Your task to perform on an android device: turn on javascript in the chrome app Image 0: 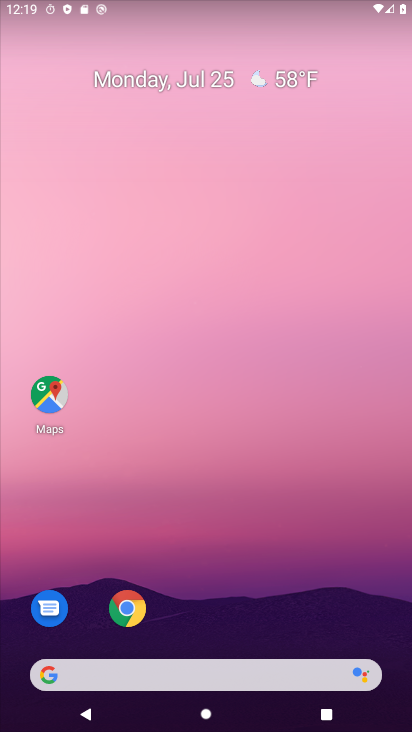
Step 0: press home button
Your task to perform on an android device: turn on javascript in the chrome app Image 1: 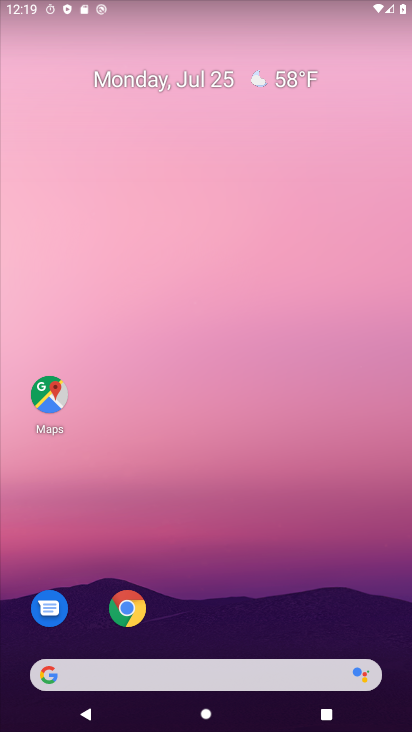
Step 1: drag from (277, 461) to (172, 64)
Your task to perform on an android device: turn on javascript in the chrome app Image 2: 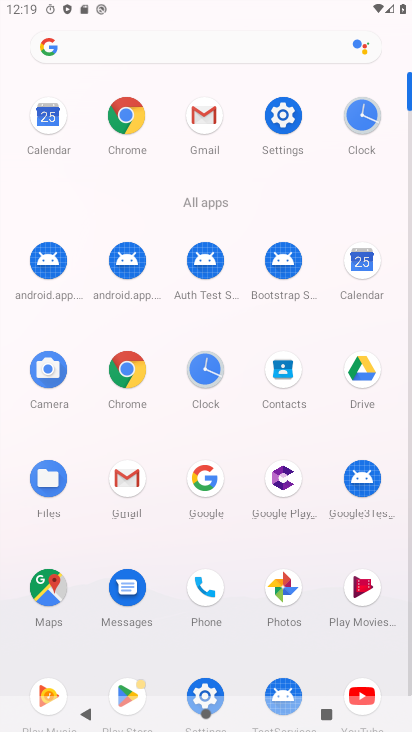
Step 2: click (129, 369)
Your task to perform on an android device: turn on javascript in the chrome app Image 3: 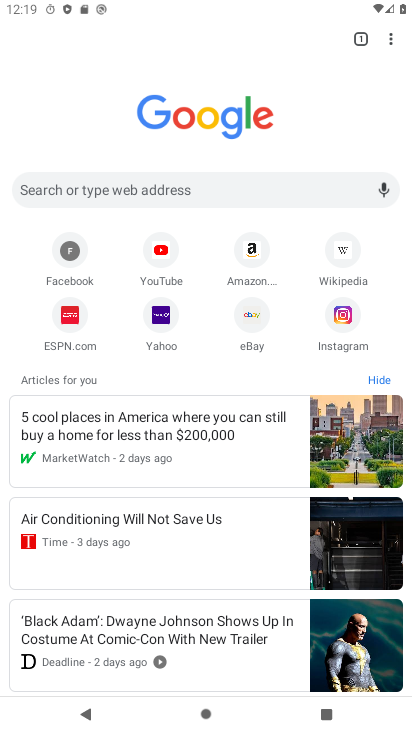
Step 3: click (395, 47)
Your task to perform on an android device: turn on javascript in the chrome app Image 4: 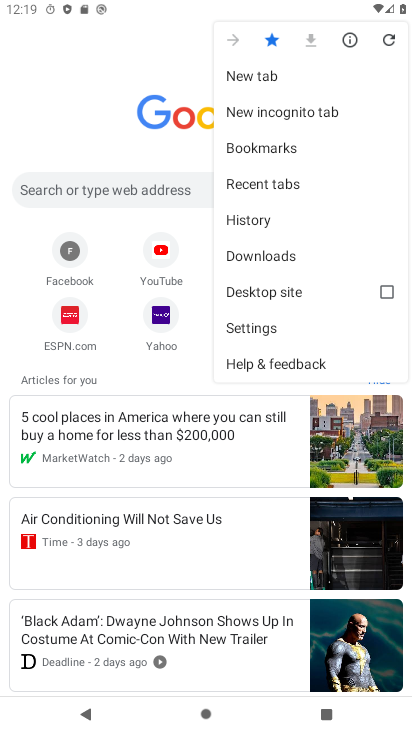
Step 4: click (249, 325)
Your task to perform on an android device: turn on javascript in the chrome app Image 5: 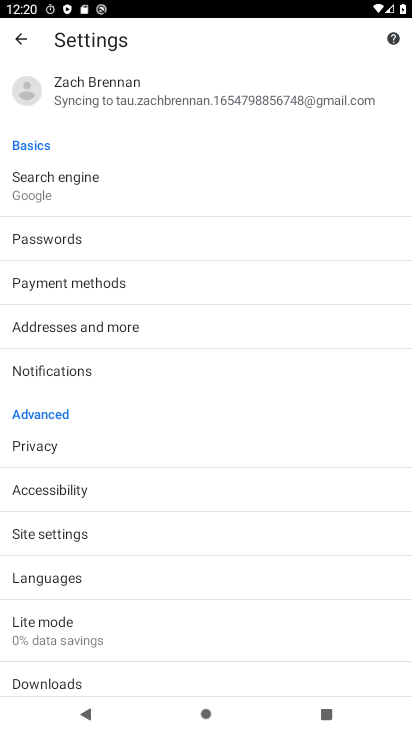
Step 5: click (67, 530)
Your task to perform on an android device: turn on javascript in the chrome app Image 6: 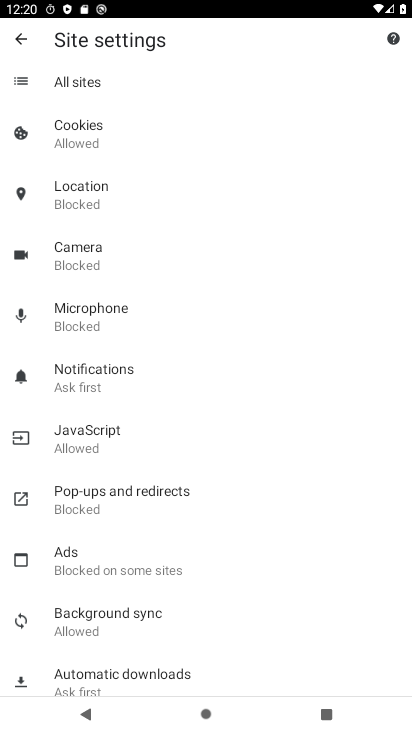
Step 6: click (79, 437)
Your task to perform on an android device: turn on javascript in the chrome app Image 7: 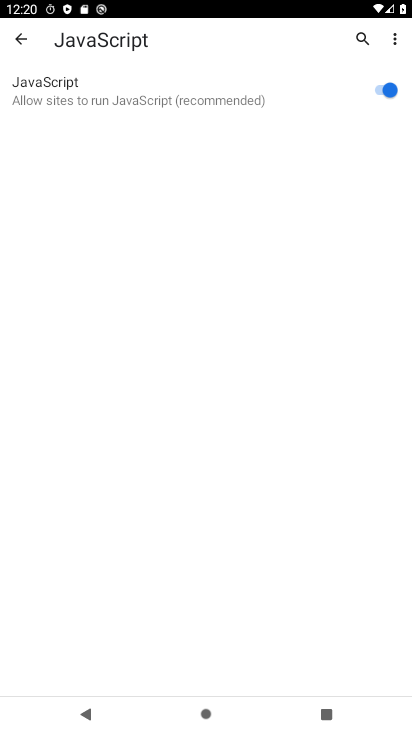
Step 7: task complete